Your task to perform on an android device: toggle sleep mode Image 0: 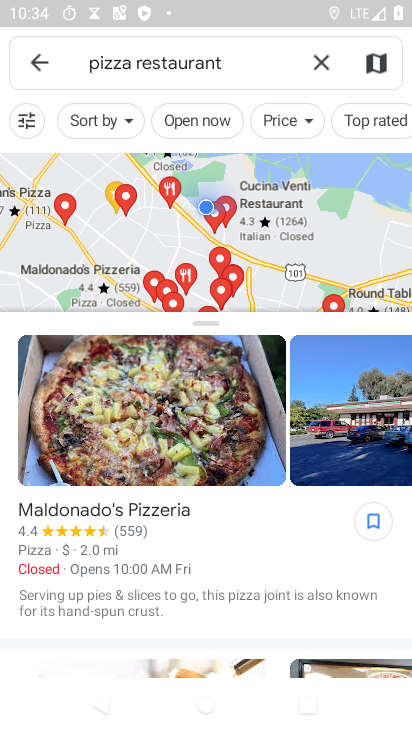
Step 0: press home button
Your task to perform on an android device: toggle sleep mode Image 1: 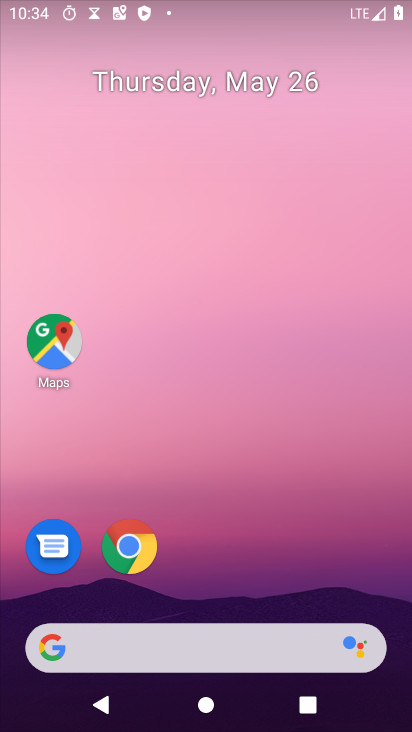
Step 1: drag from (352, 571) to (331, 202)
Your task to perform on an android device: toggle sleep mode Image 2: 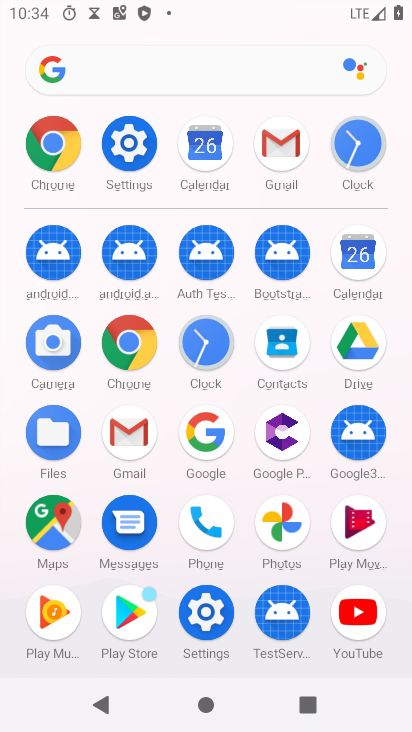
Step 2: click (126, 156)
Your task to perform on an android device: toggle sleep mode Image 3: 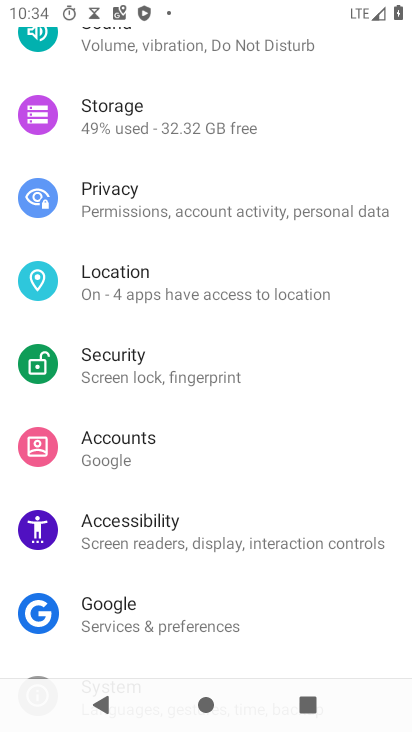
Step 3: drag from (174, 134) to (141, 514)
Your task to perform on an android device: toggle sleep mode Image 4: 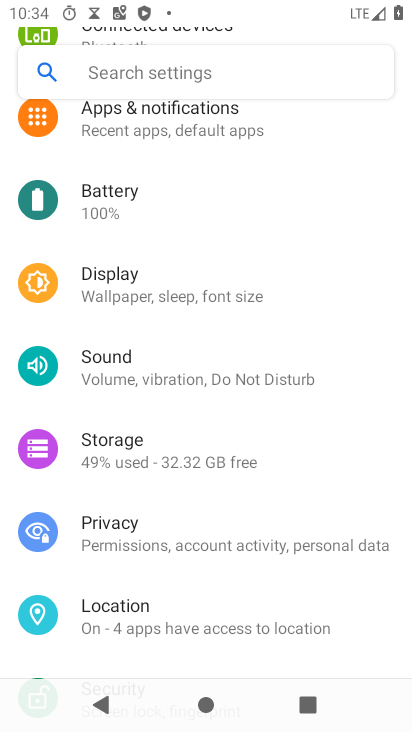
Step 4: click (175, 78)
Your task to perform on an android device: toggle sleep mode Image 5: 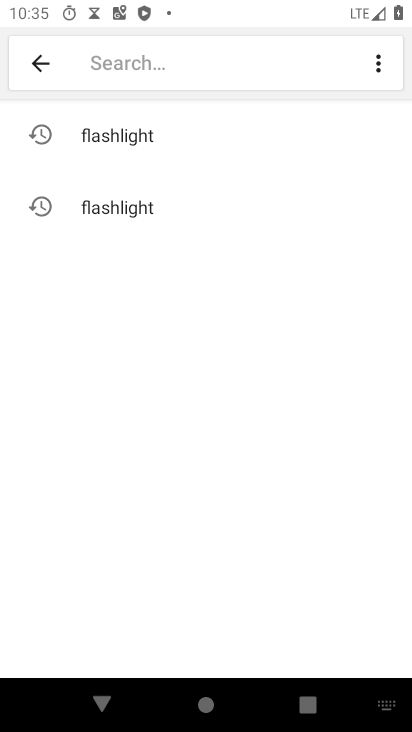
Step 5: type "sleep mode"
Your task to perform on an android device: toggle sleep mode Image 6: 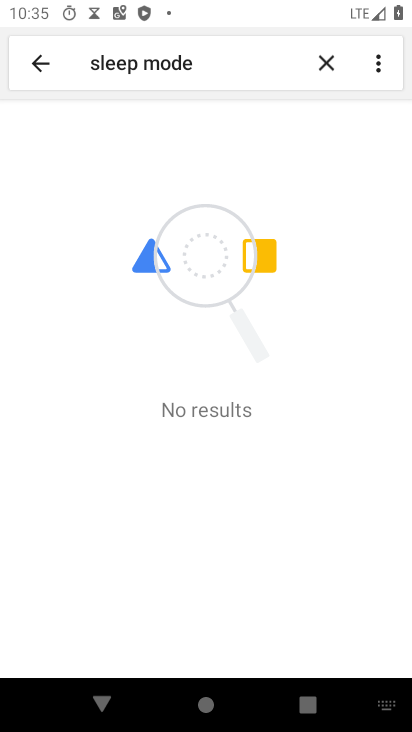
Step 6: task complete